Your task to perform on an android device: remove spam from my inbox in the gmail app Image 0: 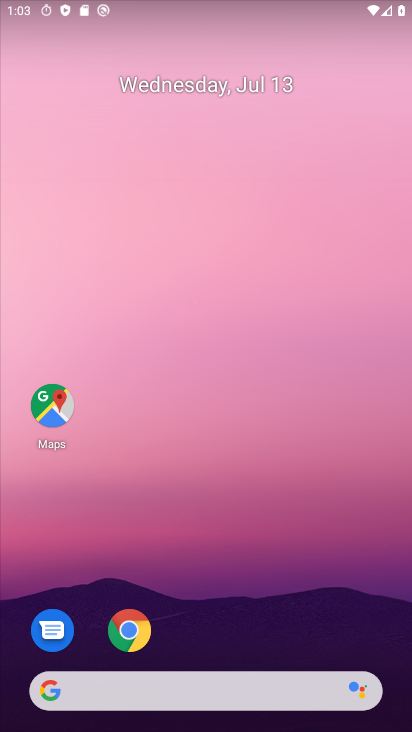
Step 0: drag from (331, 518) to (229, 36)
Your task to perform on an android device: remove spam from my inbox in the gmail app Image 1: 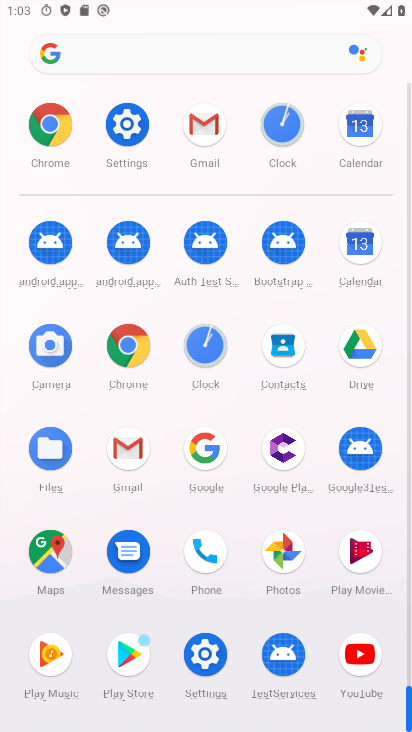
Step 1: click (209, 132)
Your task to perform on an android device: remove spam from my inbox in the gmail app Image 2: 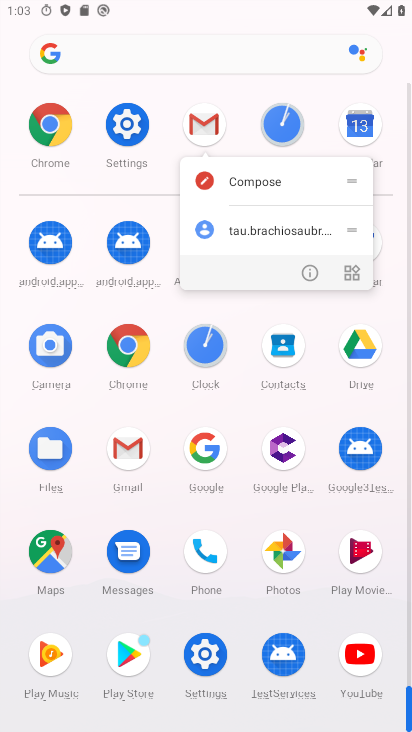
Step 2: click (209, 131)
Your task to perform on an android device: remove spam from my inbox in the gmail app Image 3: 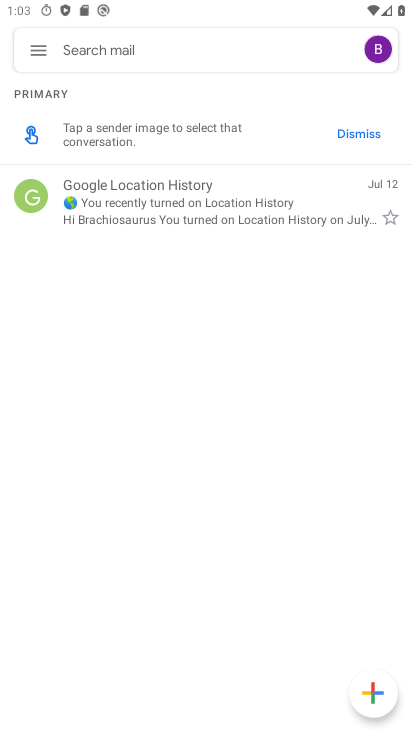
Step 3: click (30, 53)
Your task to perform on an android device: remove spam from my inbox in the gmail app Image 4: 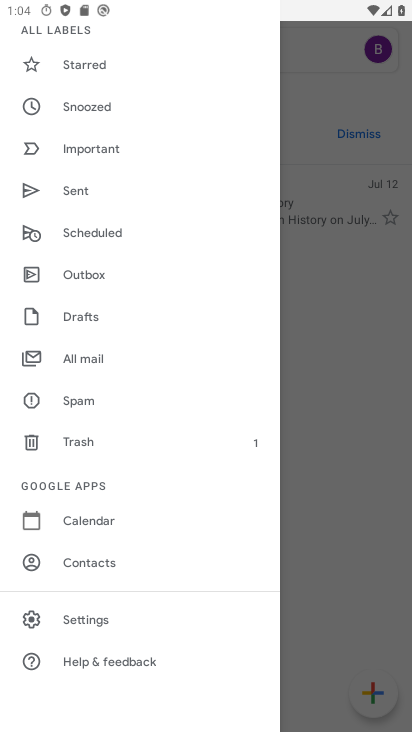
Step 4: click (76, 397)
Your task to perform on an android device: remove spam from my inbox in the gmail app Image 5: 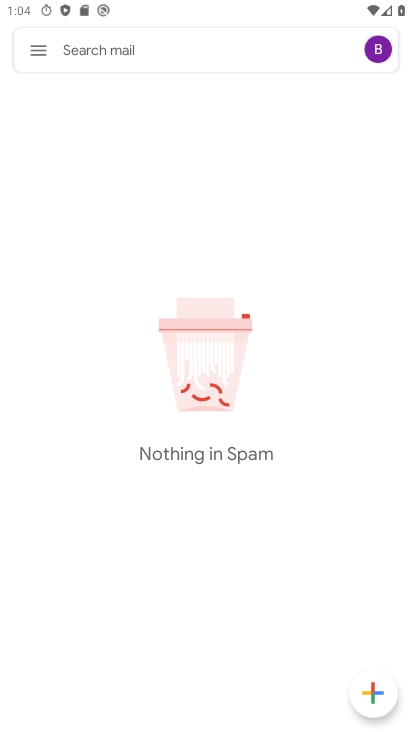
Step 5: task complete